Your task to perform on an android device: show emergency info Image 0: 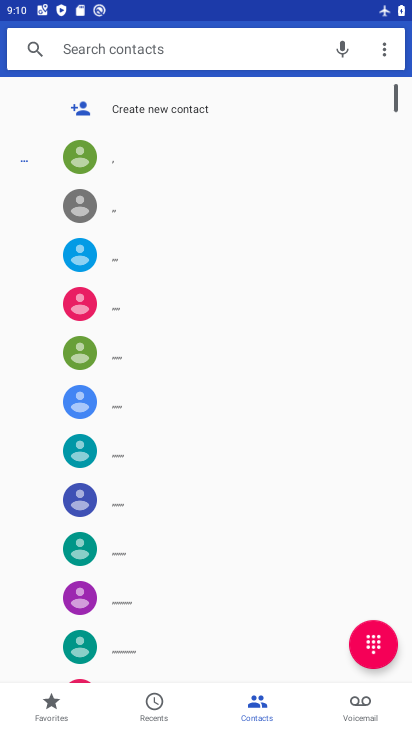
Step 0: press home button
Your task to perform on an android device: show emergency info Image 1: 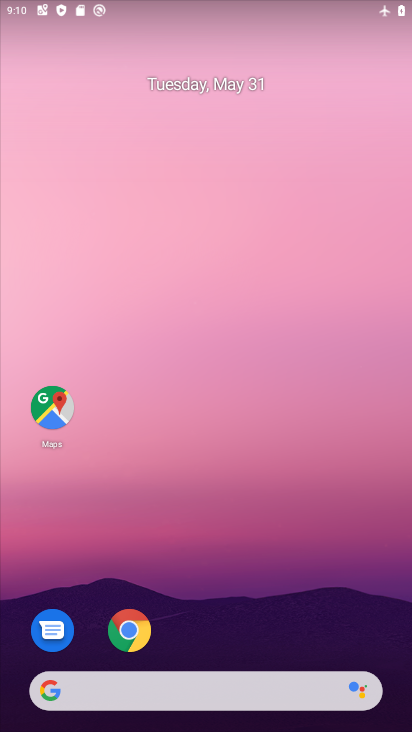
Step 1: drag from (254, 626) to (271, 144)
Your task to perform on an android device: show emergency info Image 2: 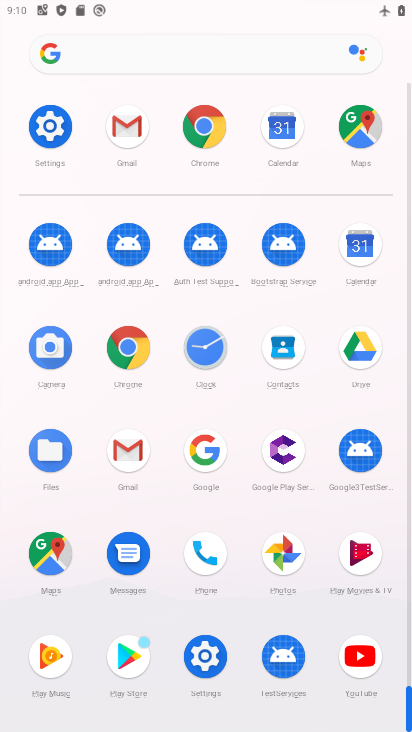
Step 2: click (52, 123)
Your task to perform on an android device: show emergency info Image 3: 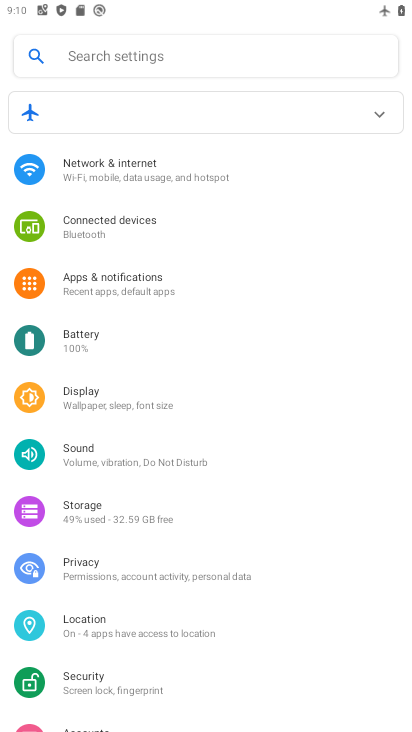
Step 3: drag from (161, 647) to (208, 166)
Your task to perform on an android device: show emergency info Image 4: 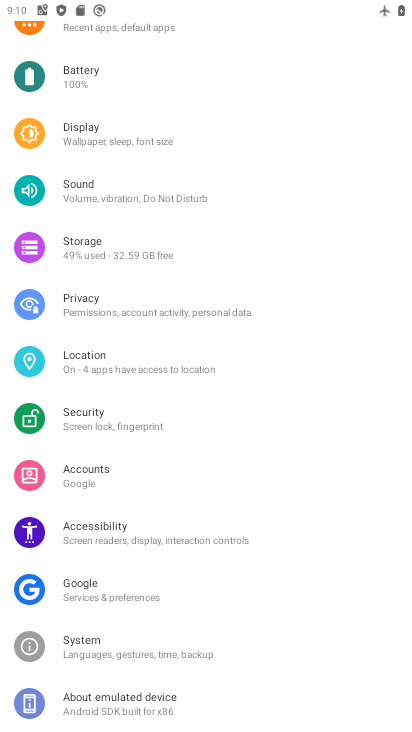
Step 4: click (142, 698)
Your task to perform on an android device: show emergency info Image 5: 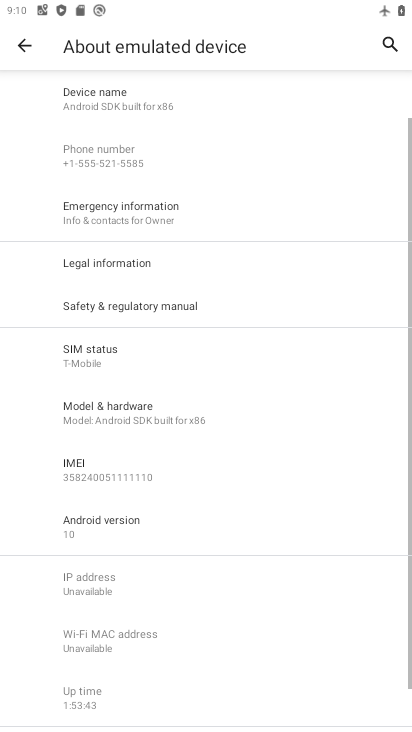
Step 5: click (163, 203)
Your task to perform on an android device: show emergency info Image 6: 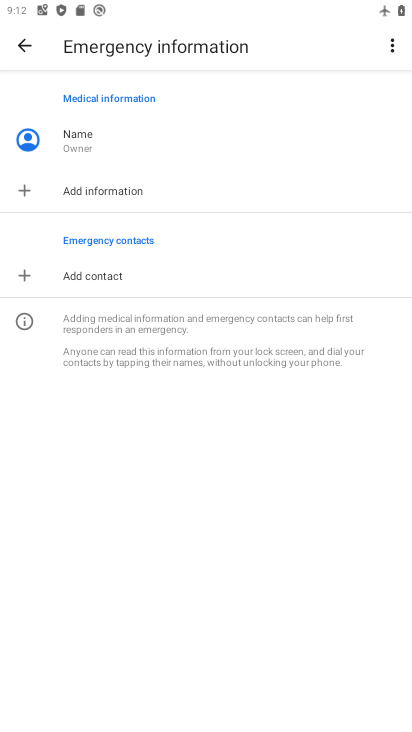
Step 6: task complete